Your task to perform on an android device: What's the weather? Image 0: 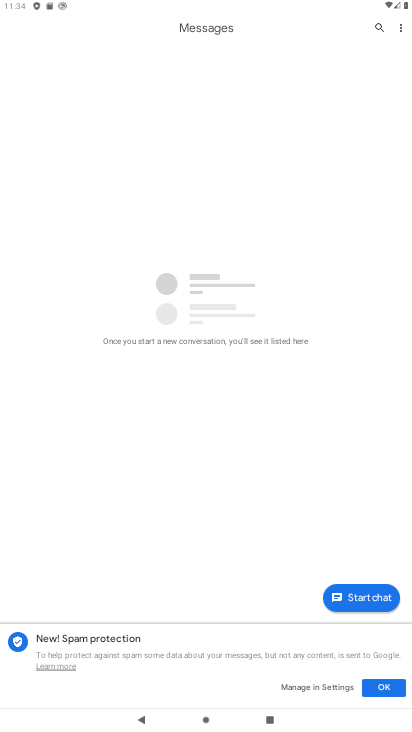
Step 0: press home button
Your task to perform on an android device: What's the weather? Image 1: 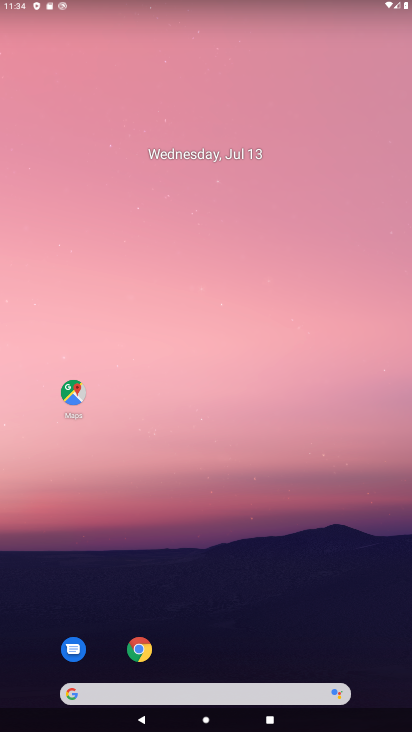
Step 1: drag from (230, 597) to (383, 168)
Your task to perform on an android device: What's the weather? Image 2: 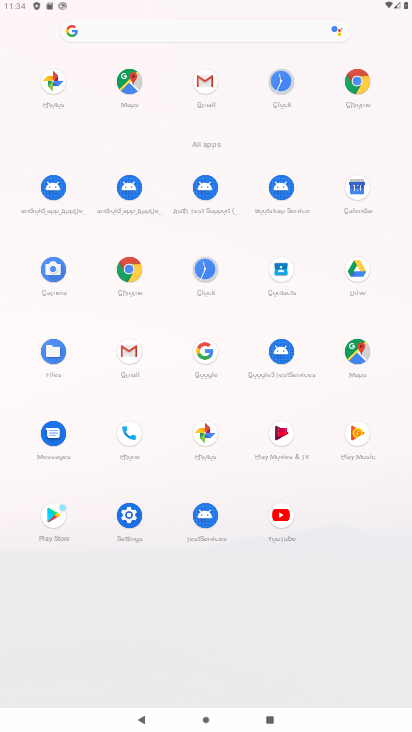
Step 2: click (360, 92)
Your task to perform on an android device: What's the weather? Image 3: 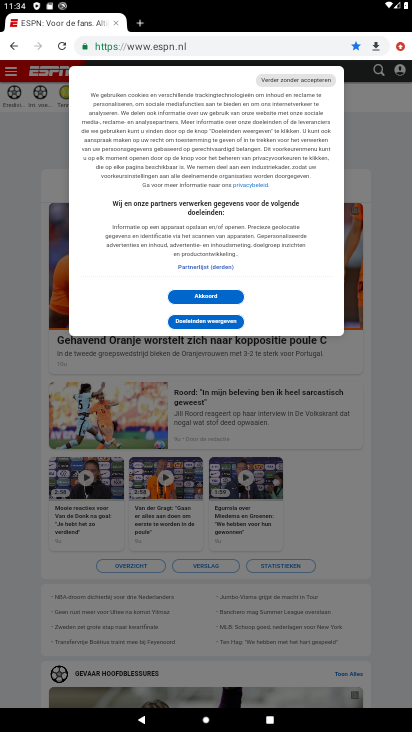
Step 3: click (223, 44)
Your task to perform on an android device: What's the weather? Image 4: 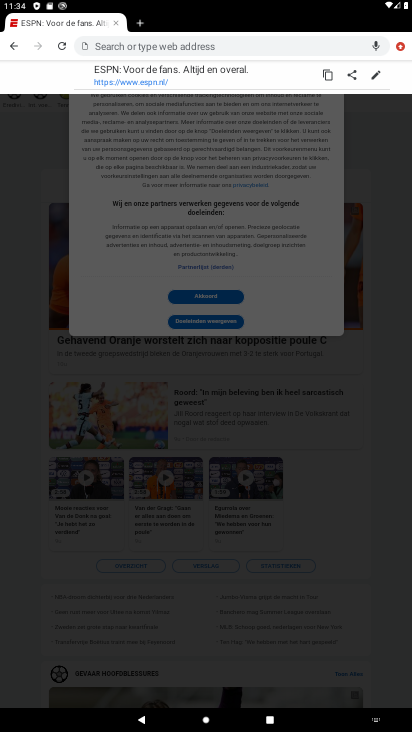
Step 4: type "What's the weather?"
Your task to perform on an android device: What's the weather? Image 5: 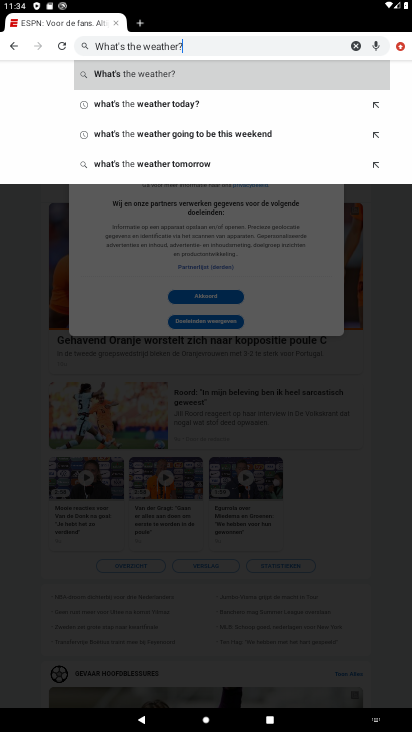
Step 5: click (249, 64)
Your task to perform on an android device: What's the weather? Image 6: 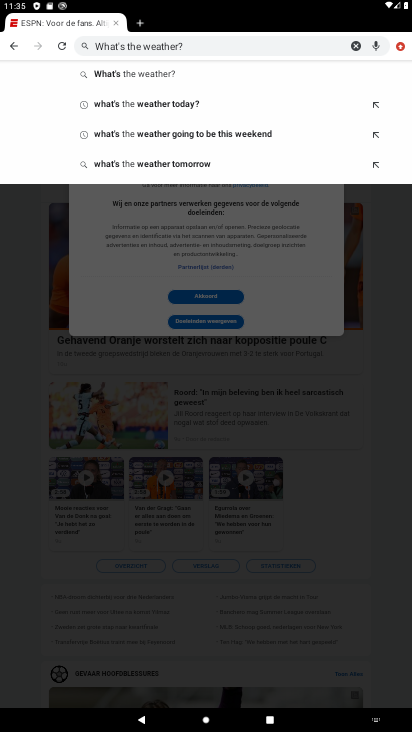
Step 6: click (142, 74)
Your task to perform on an android device: What's the weather? Image 7: 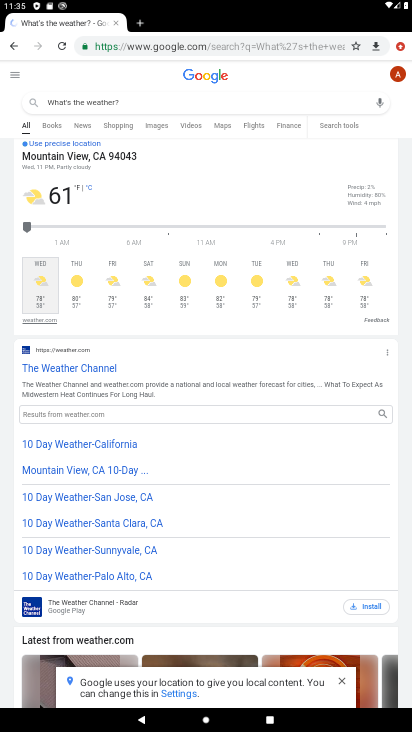
Step 7: task complete